Your task to perform on an android device: Go to calendar. Show me events next week Image 0: 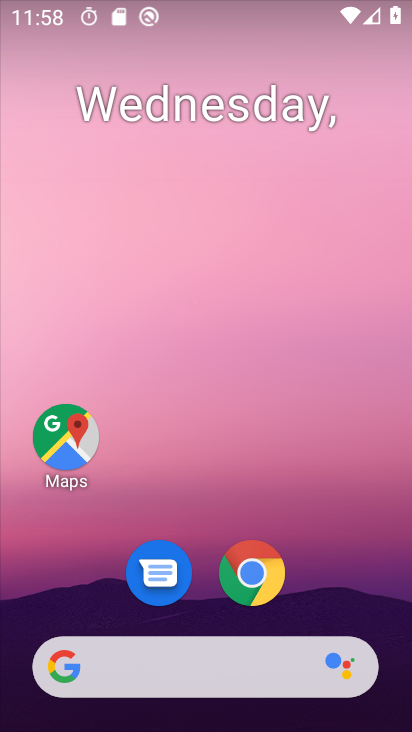
Step 0: drag from (377, 507) to (347, 93)
Your task to perform on an android device: Go to calendar. Show me events next week Image 1: 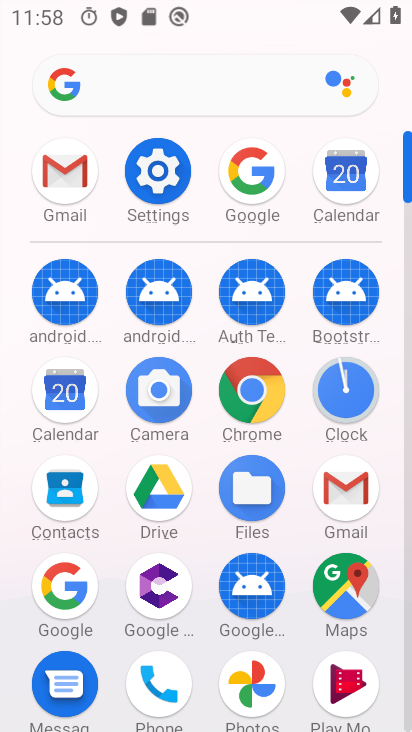
Step 1: click (70, 401)
Your task to perform on an android device: Go to calendar. Show me events next week Image 2: 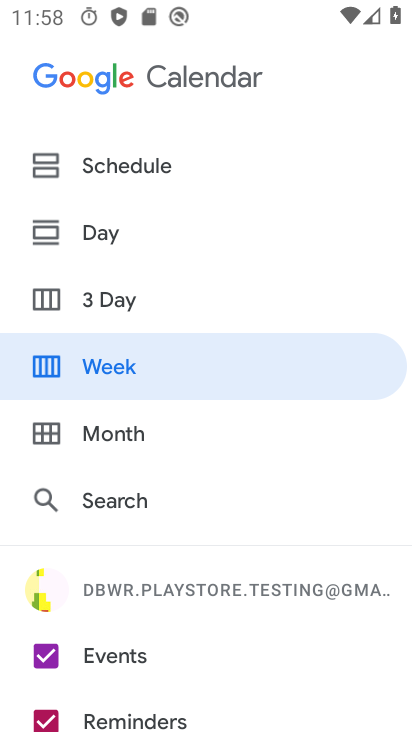
Step 2: click (139, 387)
Your task to perform on an android device: Go to calendar. Show me events next week Image 3: 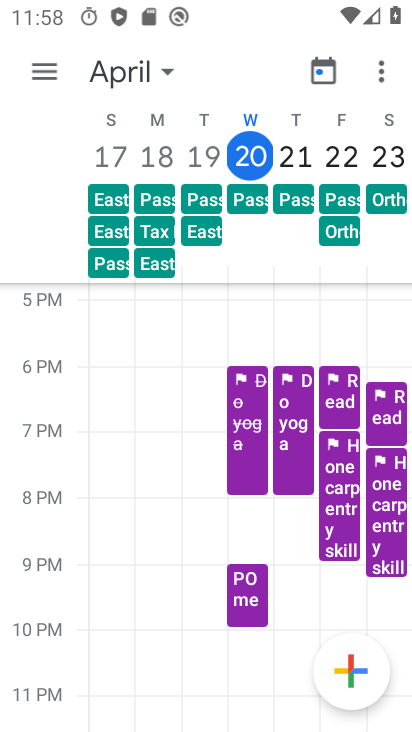
Step 3: click (157, 71)
Your task to perform on an android device: Go to calendar. Show me events next week Image 4: 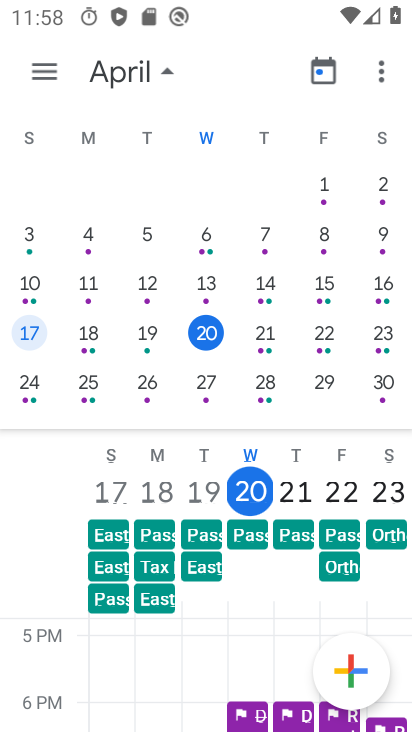
Step 4: click (205, 379)
Your task to perform on an android device: Go to calendar. Show me events next week Image 5: 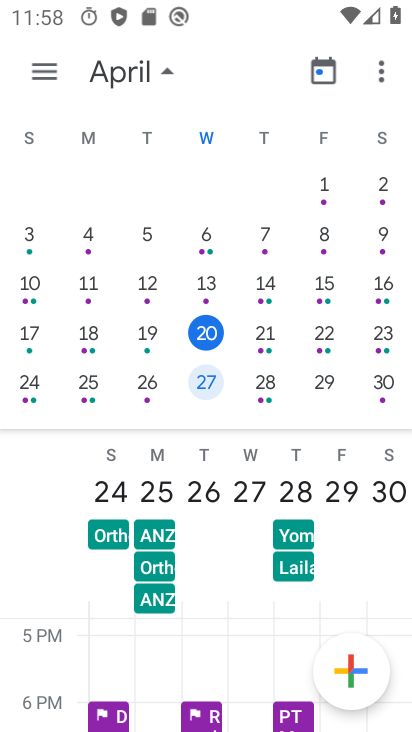
Step 5: click (44, 70)
Your task to perform on an android device: Go to calendar. Show me events next week Image 6: 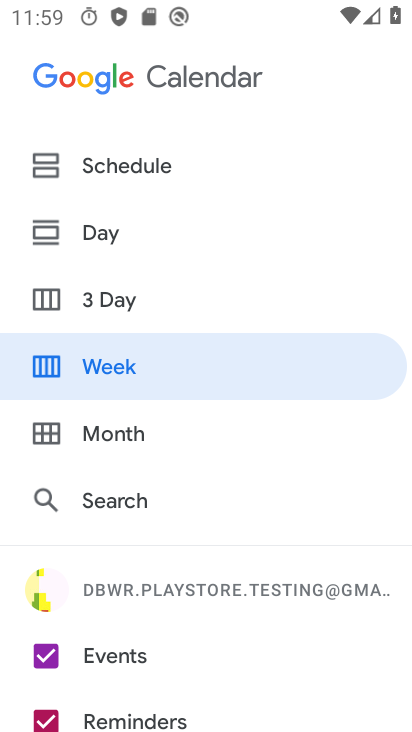
Step 6: click (129, 363)
Your task to perform on an android device: Go to calendar. Show me events next week Image 7: 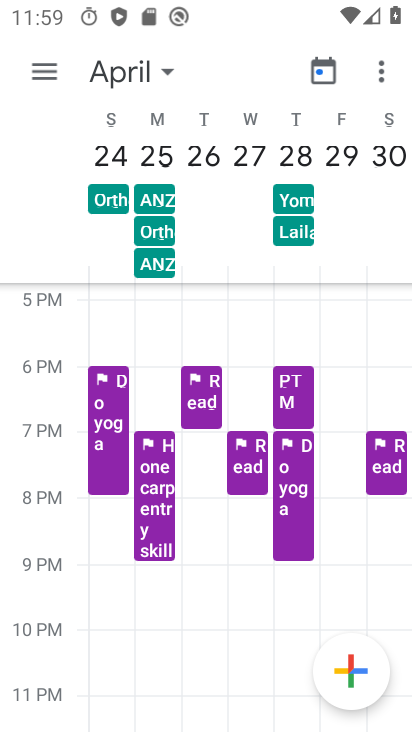
Step 7: task complete